Your task to perform on an android device: allow notifications from all sites in the chrome app Image 0: 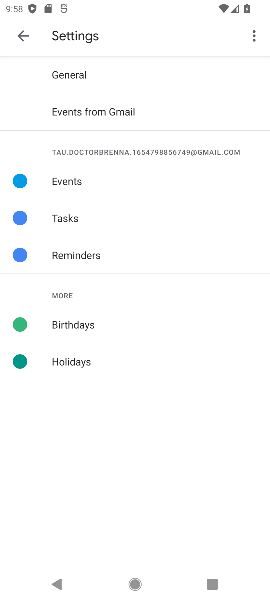
Step 0: press home button
Your task to perform on an android device: allow notifications from all sites in the chrome app Image 1: 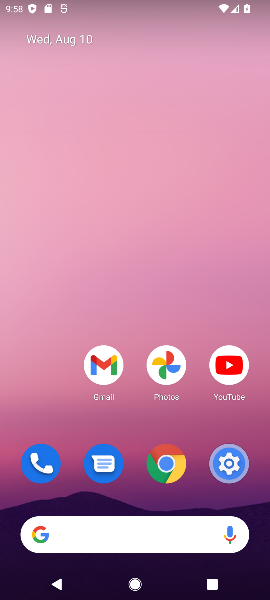
Step 1: click (163, 468)
Your task to perform on an android device: allow notifications from all sites in the chrome app Image 2: 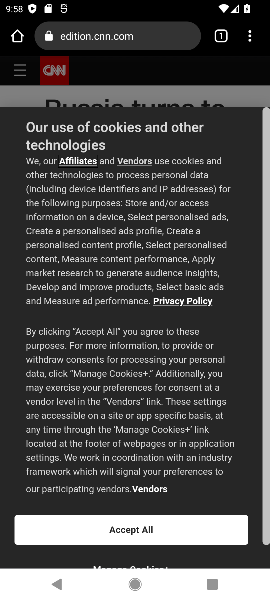
Step 2: click (248, 39)
Your task to perform on an android device: allow notifications from all sites in the chrome app Image 3: 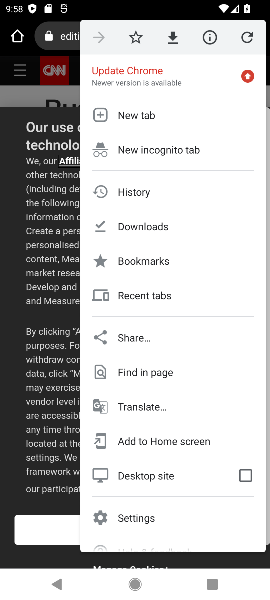
Step 3: click (132, 516)
Your task to perform on an android device: allow notifications from all sites in the chrome app Image 4: 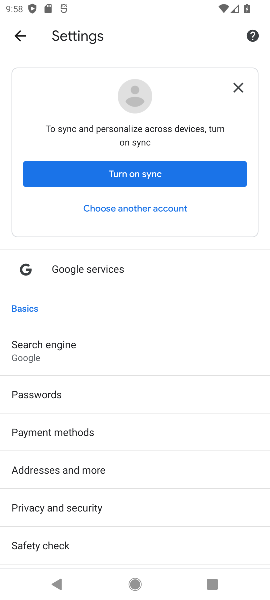
Step 4: drag from (176, 334) to (179, 219)
Your task to perform on an android device: allow notifications from all sites in the chrome app Image 5: 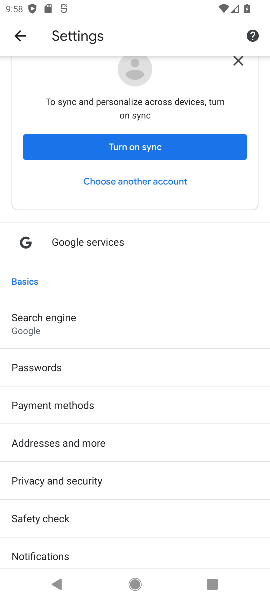
Step 5: click (50, 558)
Your task to perform on an android device: allow notifications from all sites in the chrome app Image 6: 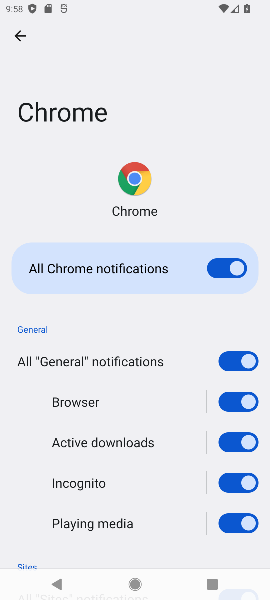
Step 6: task complete